Your task to perform on an android device: Open display settings Image 0: 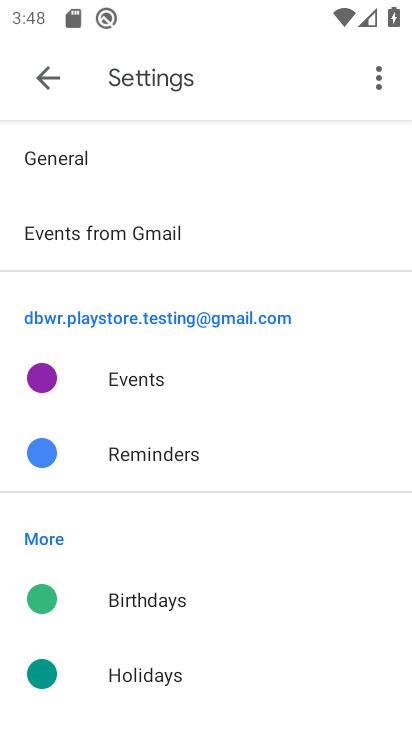
Step 0: press home button
Your task to perform on an android device: Open display settings Image 1: 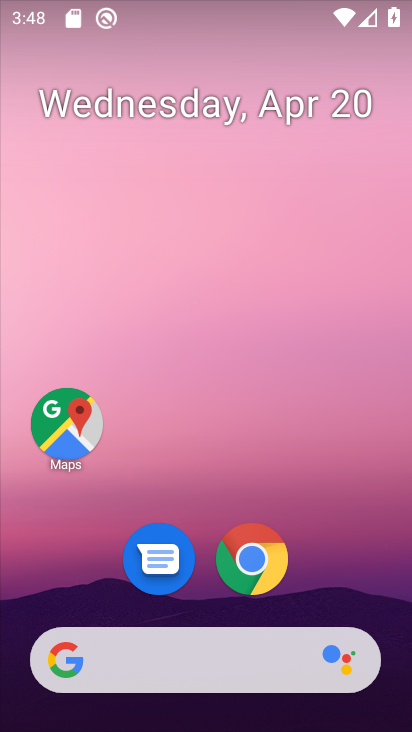
Step 1: drag from (270, 538) to (309, 128)
Your task to perform on an android device: Open display settings Image 2: 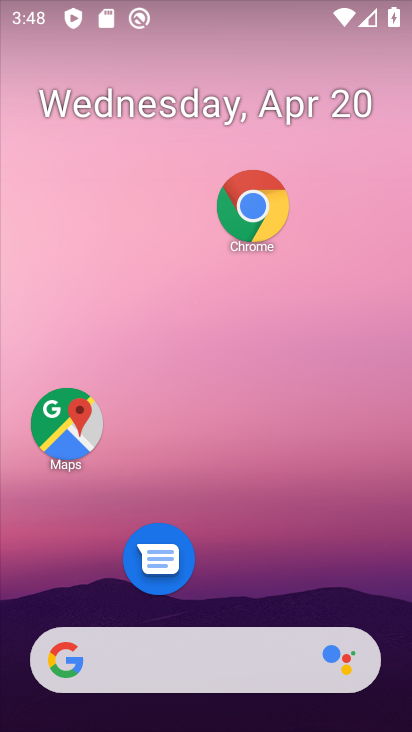
Step 2: drag from (199, 523) to (213, 25)
Your task to perform on an android device: Open display settings Image 3: 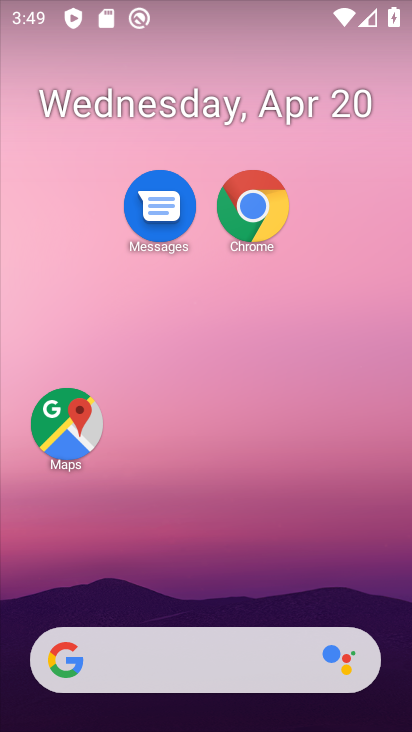
Step 3: drag from (197, 575) to (246, 167)
Your task to perform on an android device: Open display settings Image 4: 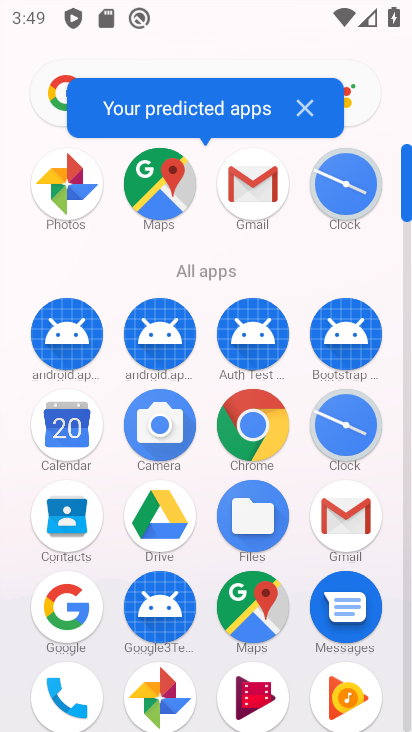
Step 4: drag from (216, 498) to (249, 197)
Your task to perform on an android device: Open display settings Image 5: 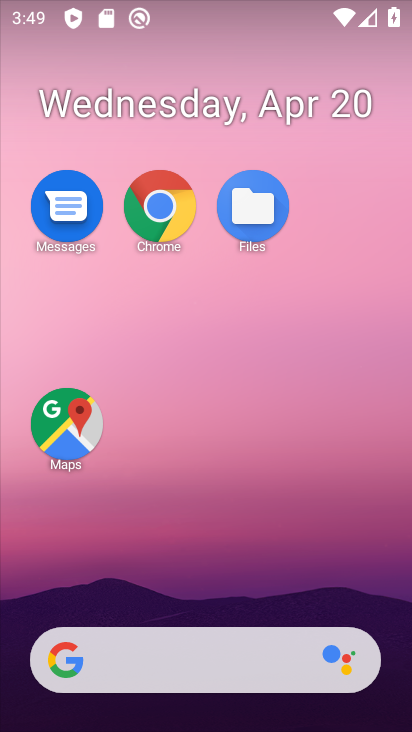
Step 5: drag from (191, 561) to (355, 20)
Your task to perform on an android device: Open display settings Image 6: 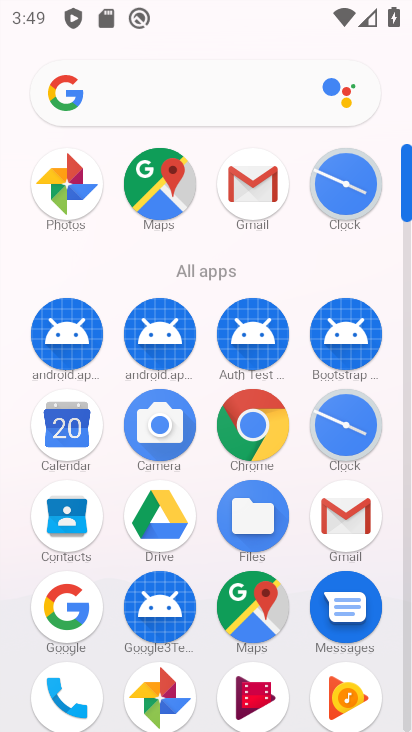
Step 6: drag from (197, 593) to (262, 207)
Your task to perform on an android device: Open display settings Image 7: 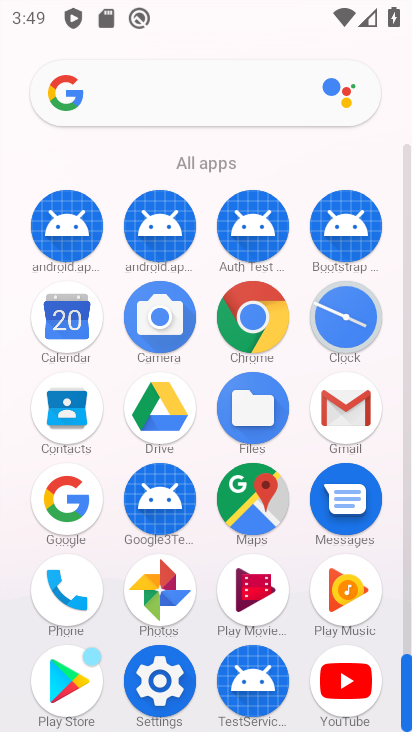
Step 7: click (159, 674)
Your task to perform on an android device: Open display settings Image 8: 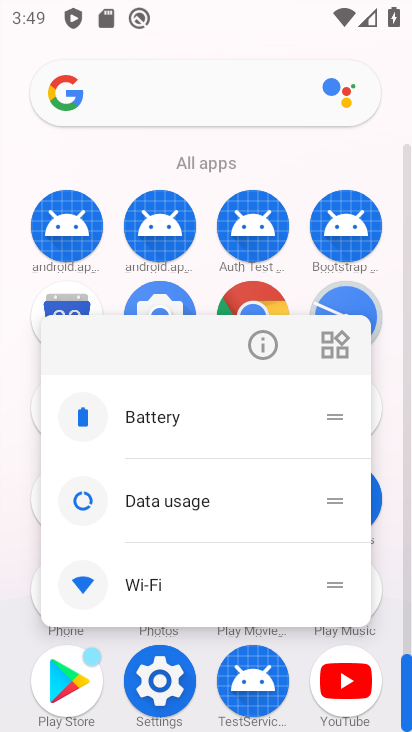
Step 8: click (161, 678)
Your task to perform on an android device: Open display settings Image 9: 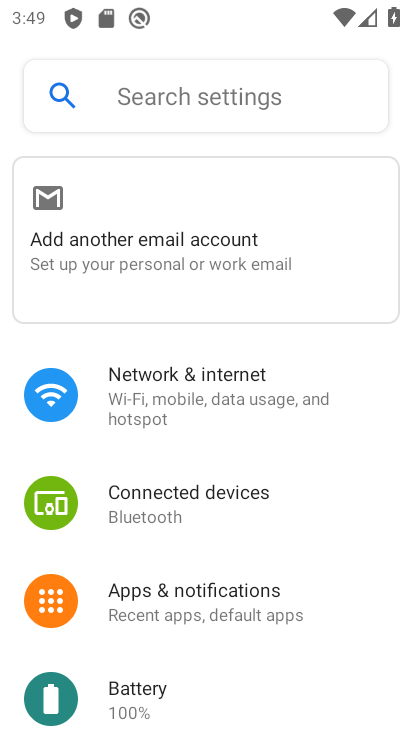
Step 9: click (160, 609)
Your task to perform on an android device: Open display settings Image 10: 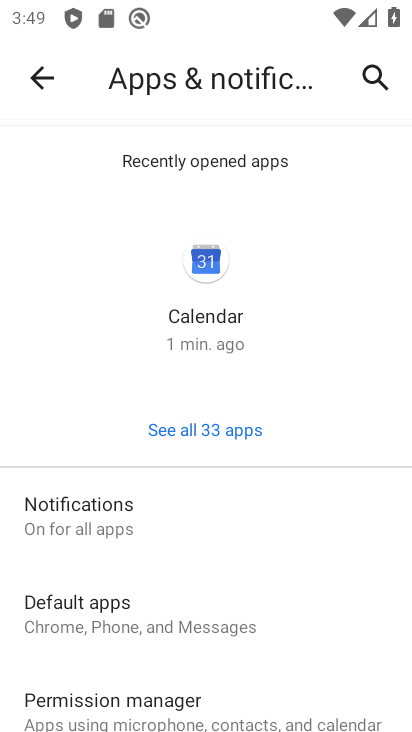
Step 10: drag from (178, 469) to (218, 257)
Your task to perform on an android device: Open display settings Image 11: 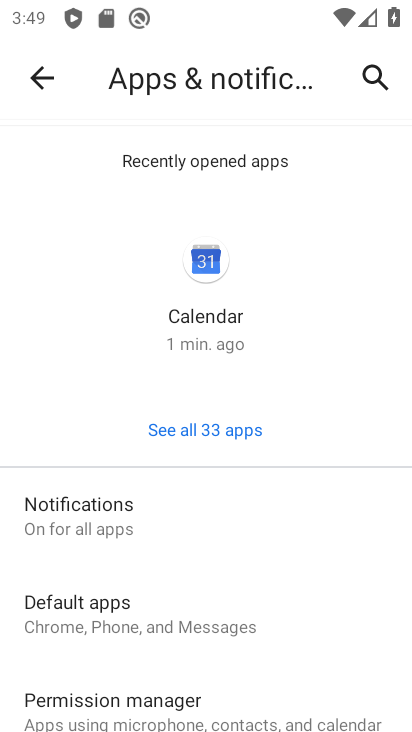
Step 11: click (50, 82)
Your task to perform on an android device: Open display settings Image 12: 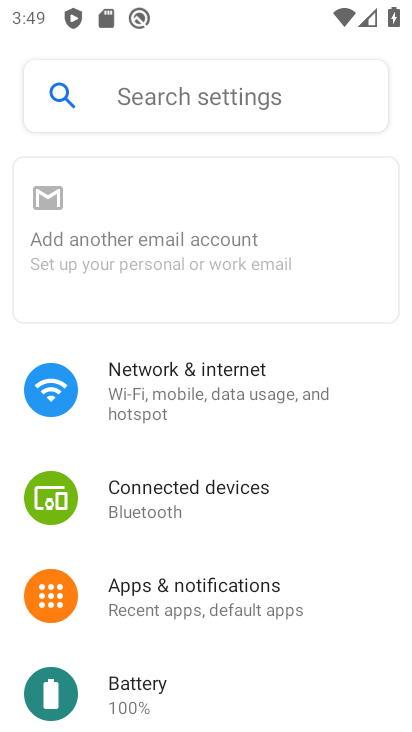
Step 12: drag from (169, 507) to (203, 286)
Your task to perform on an android device: Open display settings Image 13: 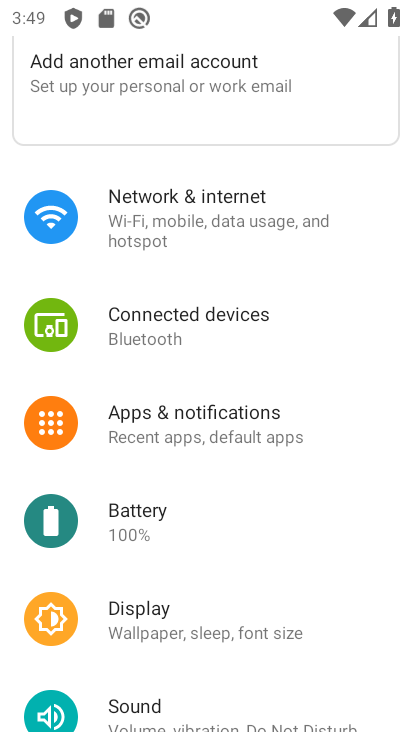
Step 13: click (175, 636)
Your task to perform on an android device: Open display settings Image 14: 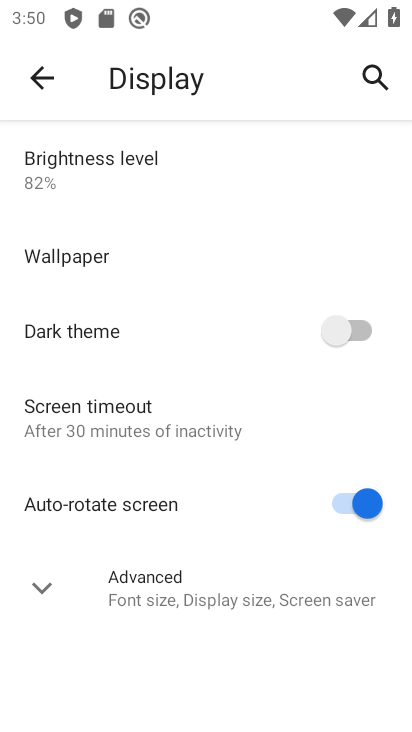
Step 14: task complete